Your task to perform on an android device: Open Android settings Image 0: 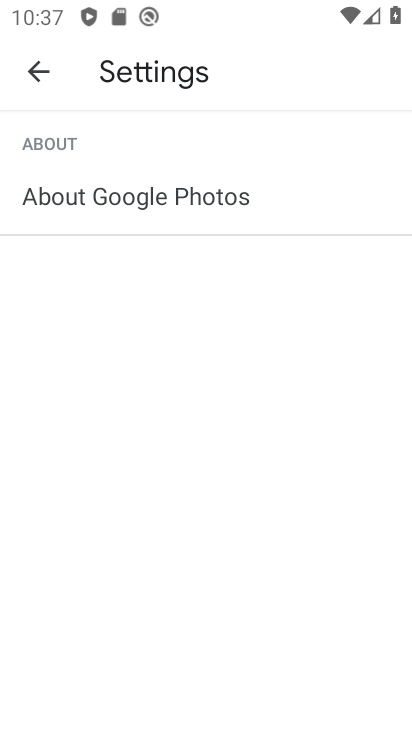
Step 0: press home button
Your task to perform on an android device: Open Android settings Image 1: 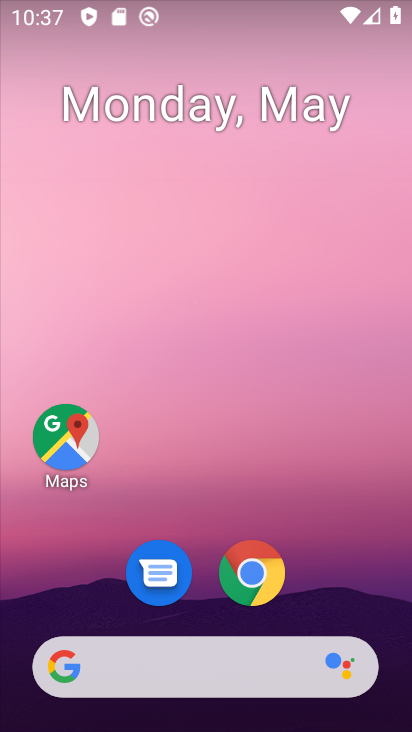
Step 1: drag from (185, 622) to (222, 170)
Your task to perform on an android device: Open Android settings Image 2: 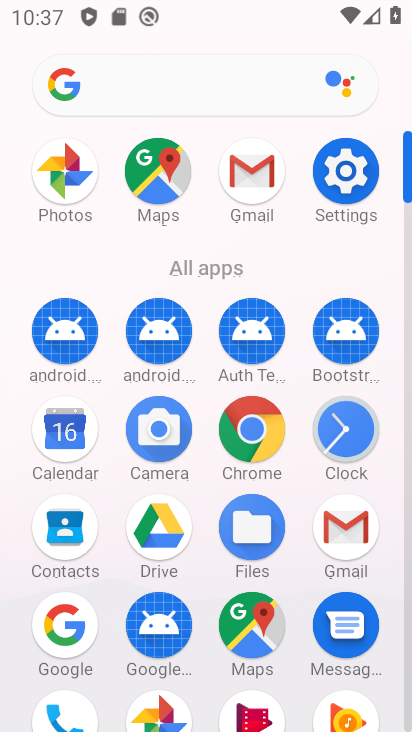
Step 2: click (353, 172)
Your task to perform on an android device: Open Android settings Image 3: 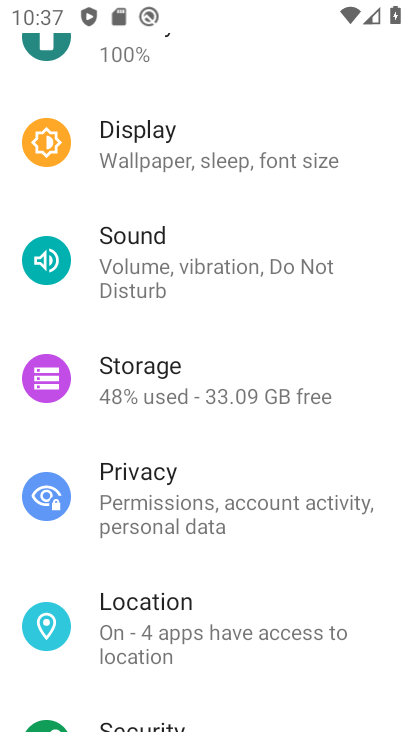
Step 3: task complete